Your task to perform on an android device: change the clock display to digital Image 0: 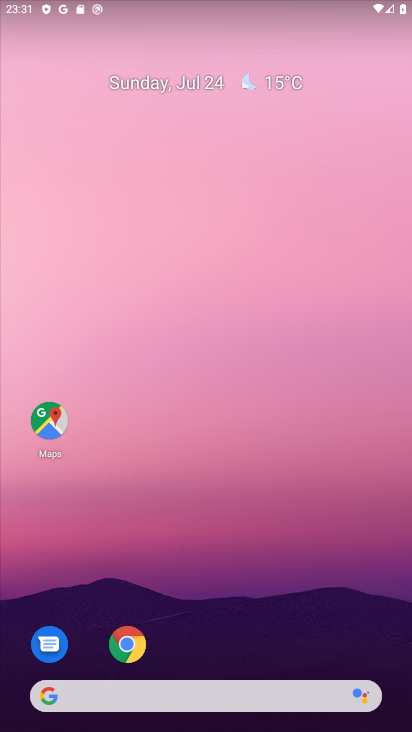
Step 0: drag from (220, 726) to (220, 349)
Your task to perform on an android device: change the clock display to digital Image 1: 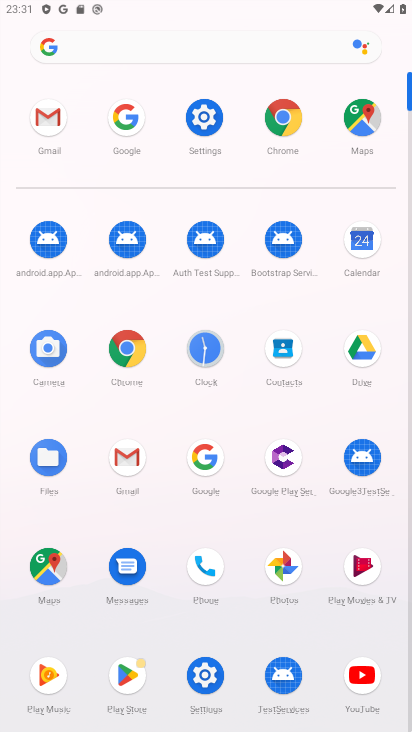
Step 1: click (201, 350)
Your task to perform on an android device: change the clock display to digital Image 2: 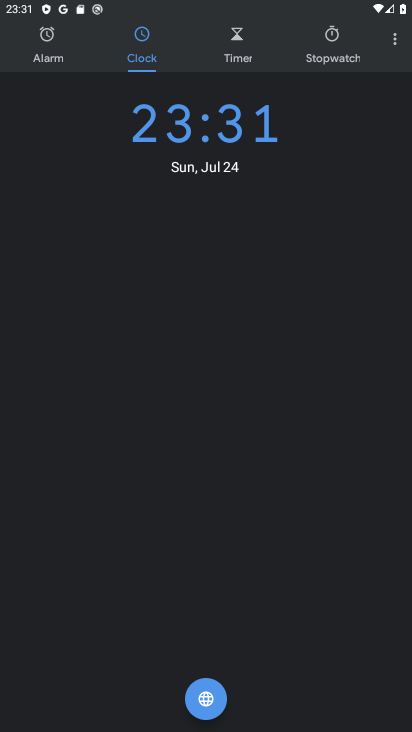
Step 2: click (394, 45)
Your task to perform on an android device: change the clock display to digital Image 3: 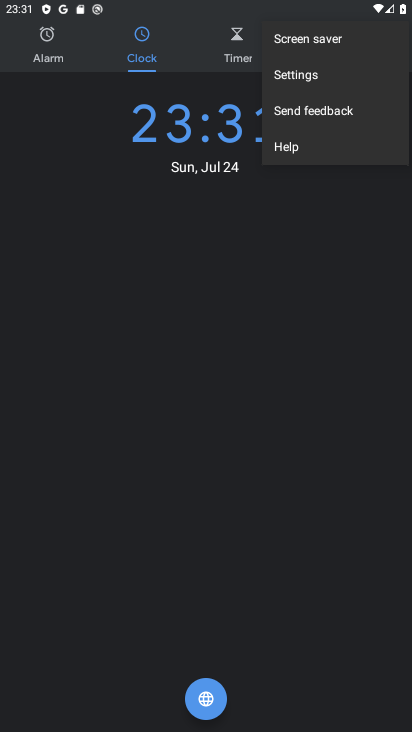
Step 3: click (290, 73)
Your task to perform on an android device: change the clock display to digital Image 4: 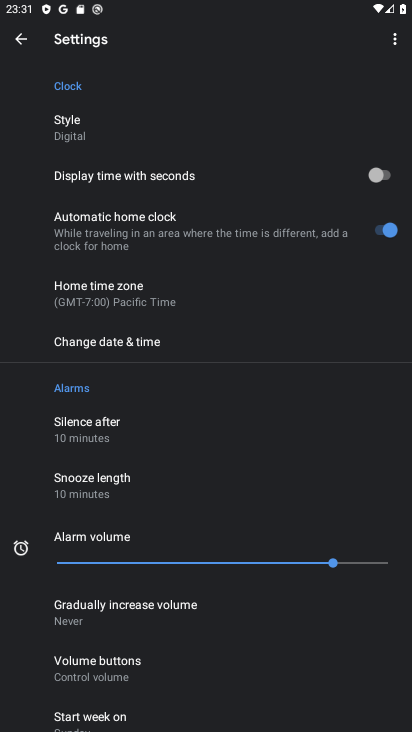
Step 4: task complete